Your task to perform on an android device: When is my next meeting? Image 0: 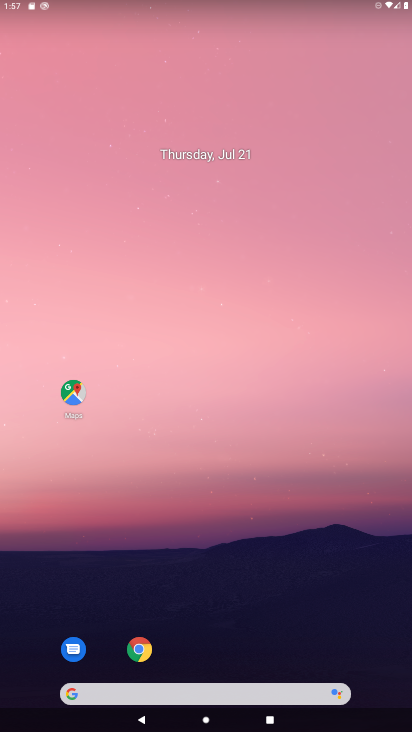
Step 0: drag from (330, 582) to (229, 18)
Your task to perform on an android device: When is my next meeting? Image 1: 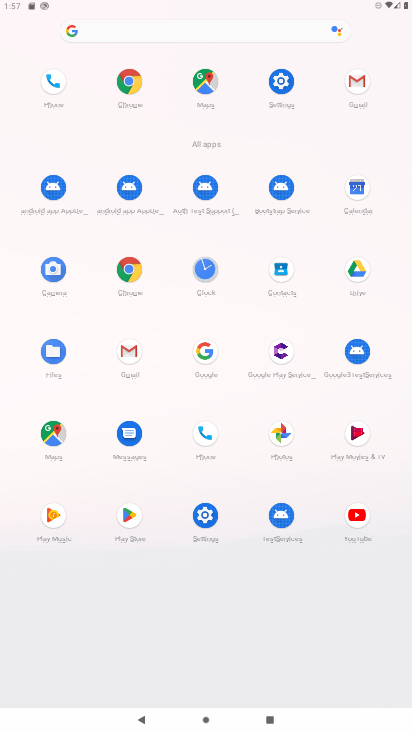
Step 1: click (362, 200)
Your task to perform on an android device: When is my next meeting? Image 2: 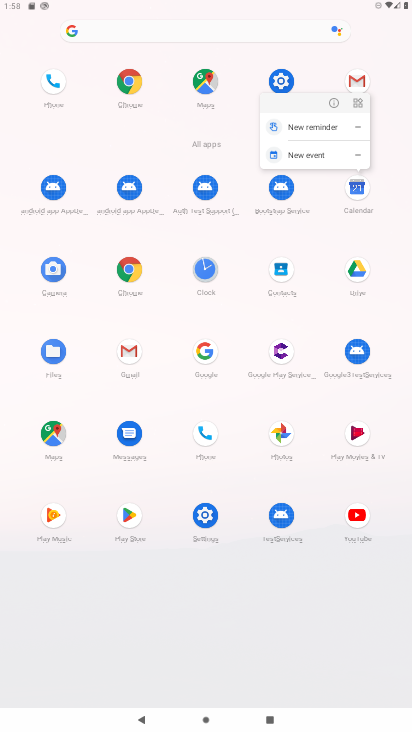
Step 2: click (346, 181)
Your task to perform on an android device: When is my next meeting? Image 3: 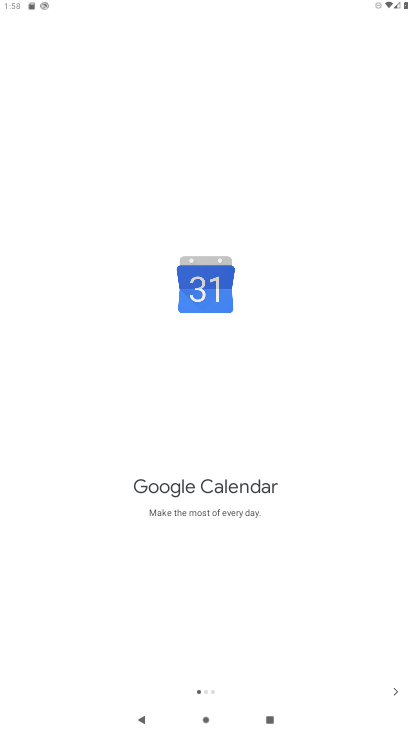
Step 3: click (399, 692)
Your task to perform on an android device: When is my next meeting? Image 4: 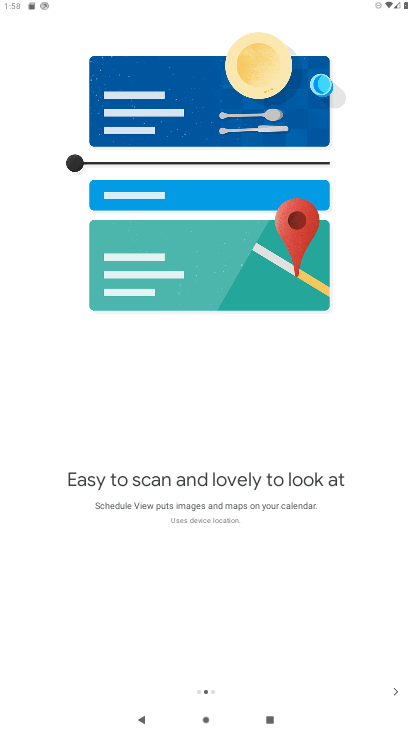
Step 4: click (391, 692)
Your task to perform on an android device: When is my next meeting? Image 5: 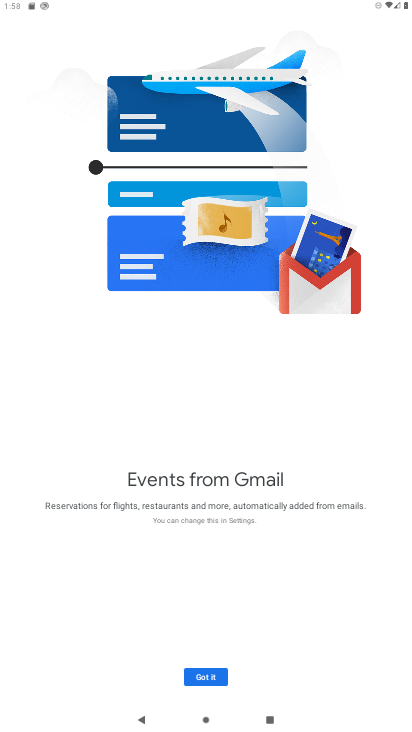
Step 5: click (215, 669)
Your task to perform on an android device: When is my next meeting? Image 6: 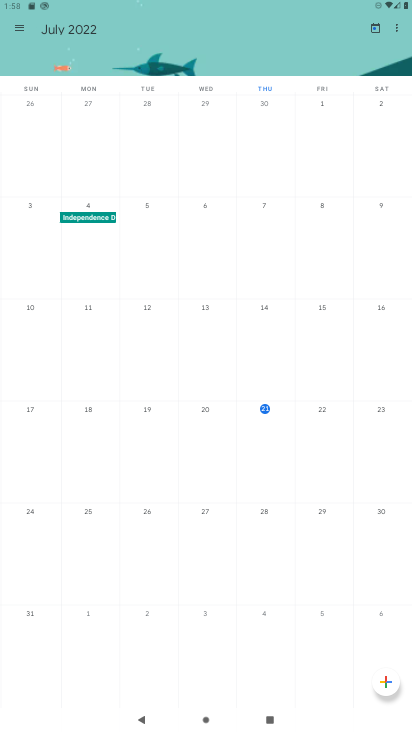
Step 6: click (264, 400)
Your task to perform on an android device: When is my next meeting? Image 7: 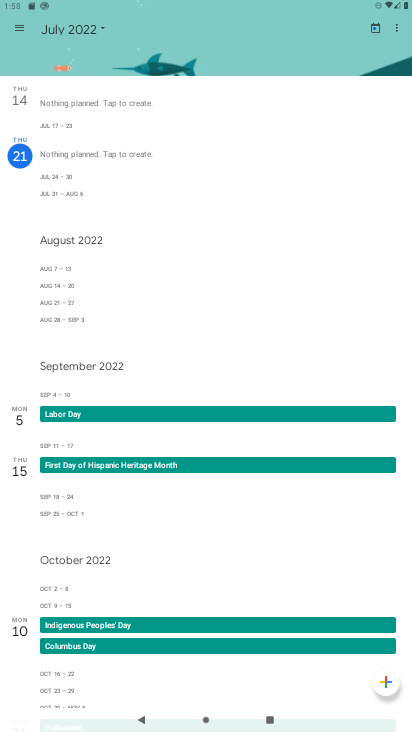
Step 7: task complete